Your task to perform on an android device: choose inbox layout in the gmail app Image 0: 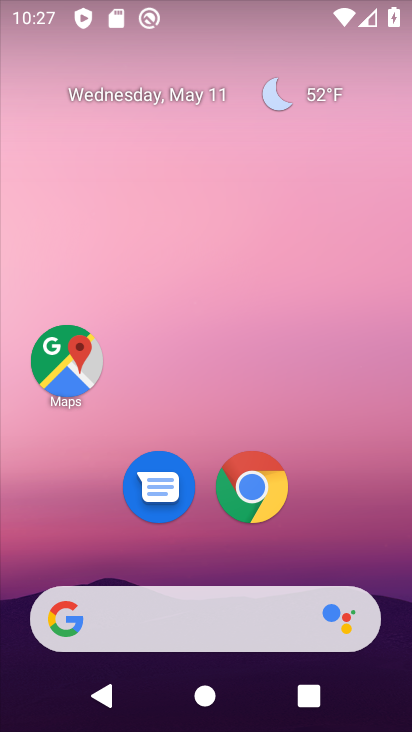
Step 0: drag from (387, 590) to (280, 29)
Your task to perform on an android device: choose inbox layout in the gmail app Image 1: 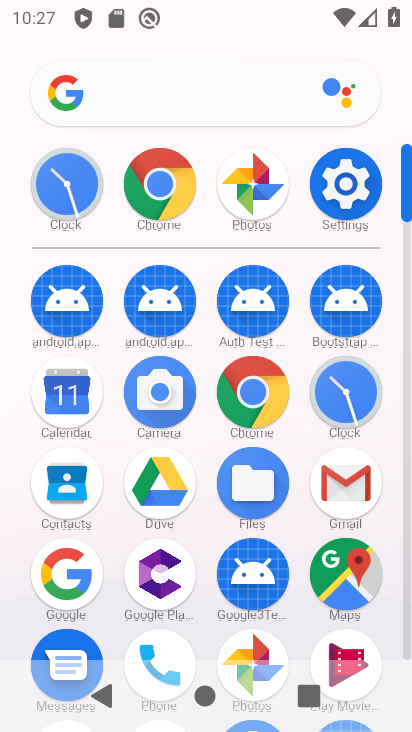
Step 1: drag from (12, 574) to (21, 300)
Your task to perform on an android device: choose inbox layout in the gmail app Image 2: 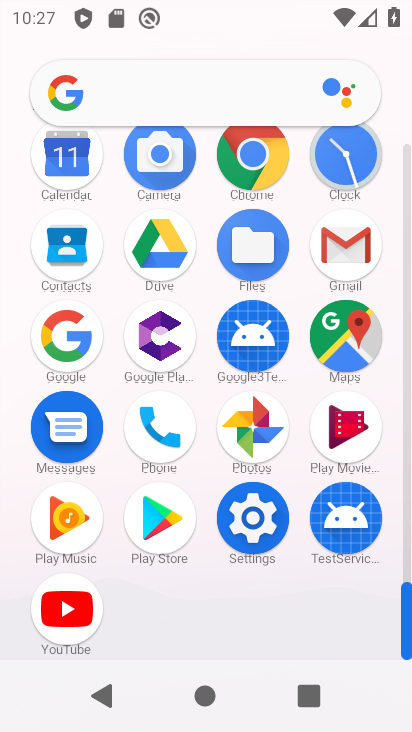
Step 2: click (340, 240)
Your task to perform on an android device: choose inbox layout in the gmail app Image 3: 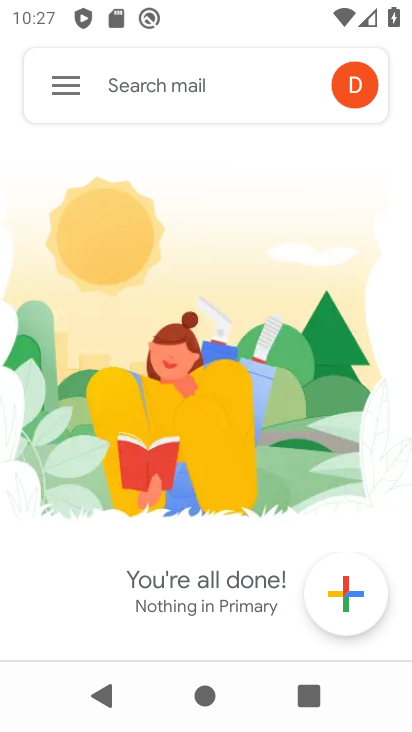
Step 3: click (77, 82)
Your task to perform on an android device: choose inbox layout in the gmail app Image 4: 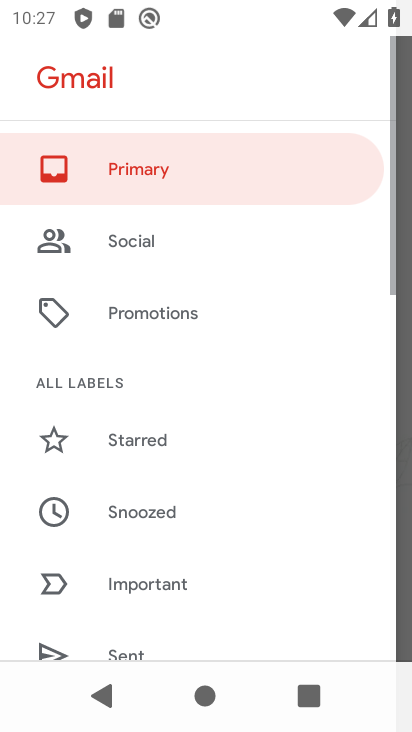
Step 4: drag from (180, 581) to (192, 175)
Your task to perform on an android device: choose inbox layout in the gmail app Image 5: 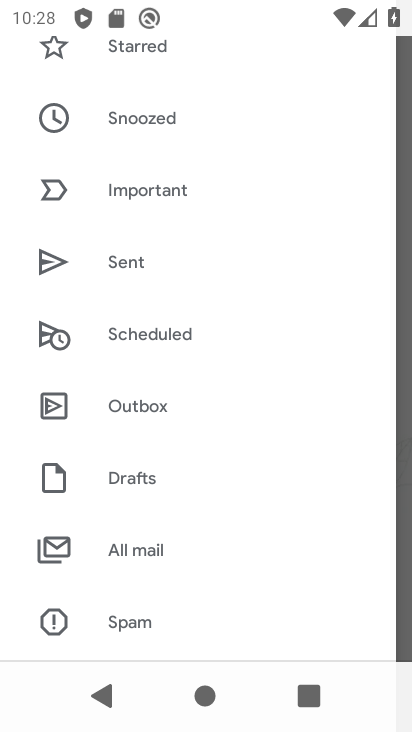
Step 5: drag from (212, 527) to (232, 133)
Your task to perform on an android device: choose inbox layout in the gmail app Image 6: 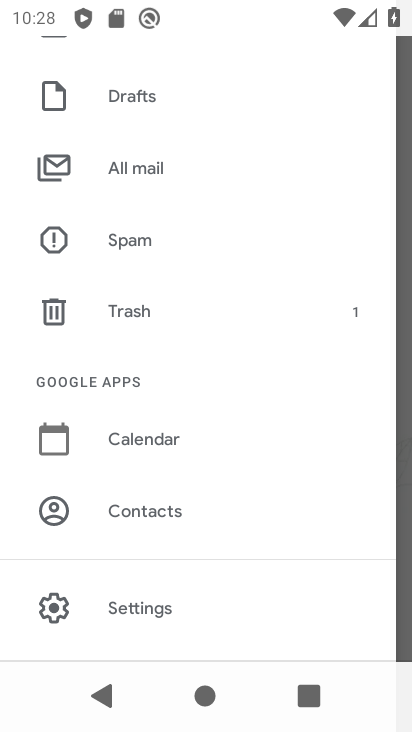
Step 6: click (162, 607)
Your task to perform on an android device: choose inbox layout in the gmail app Image 7: 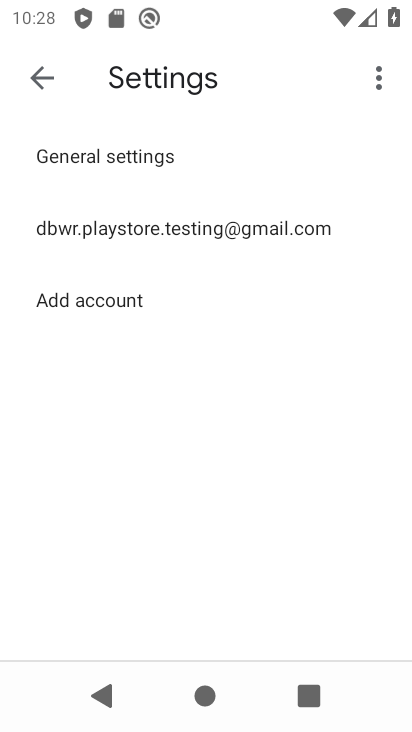
Step 7: click (183, 225)
Your task to perform on an android device: choose inbox layout in the gmail app Image 8: 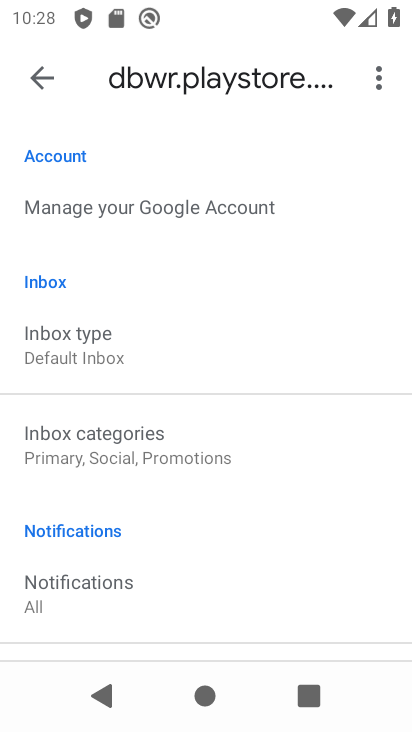
Step 8: click (131, 347)
Your task to perform on an android device: choose inbox layout in the gmail app Image 9: 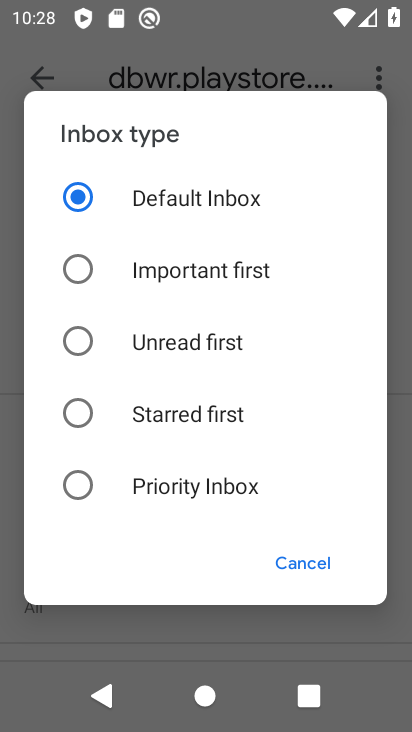
Step 9: click (143, 276)
Your task to perform on an android device: choose inbox layout in the gmail app Image 10: 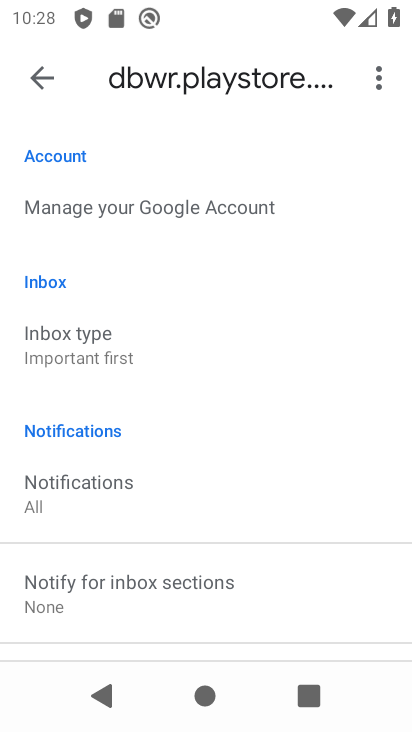
Step 10: task complete